Your task to perform on an android device: Go to sound settings Image 0: 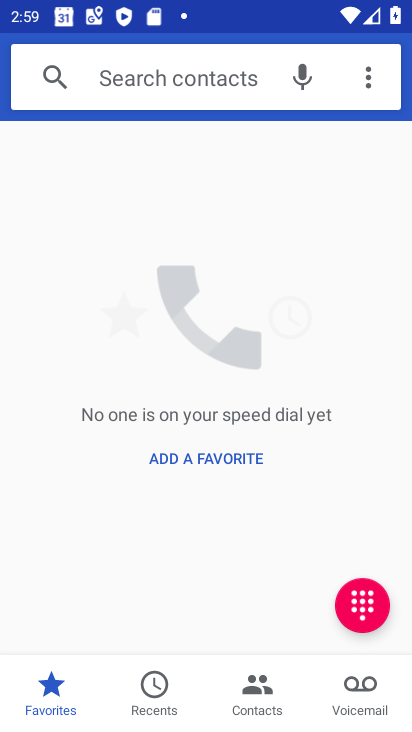
Step 0: press home button
Your task to perform on an android device: Go to sound settings Image 1: 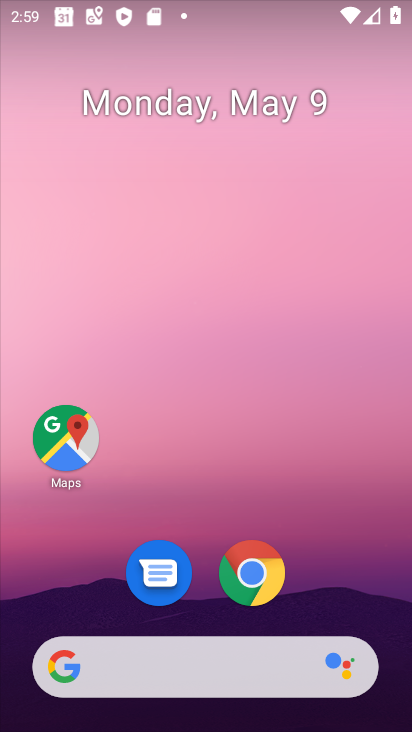
Step 1: drag from (170, 557) to (147, 255)
Your task to perform on an android device: Go to sound settings Image 2: 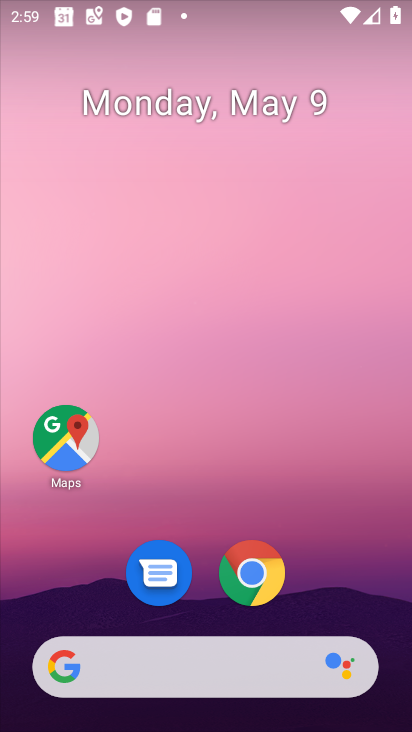
Step 2: drag from (208, 641) to (135, 131)
Your task to perform on an android device: Go to sound settings Image 3: 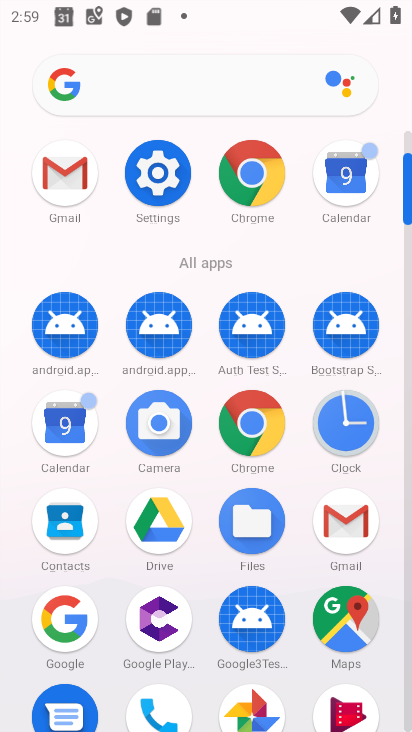
Step 3: click (152, 168)
Your task to perform on an android device: Go to sound settings Image 4: 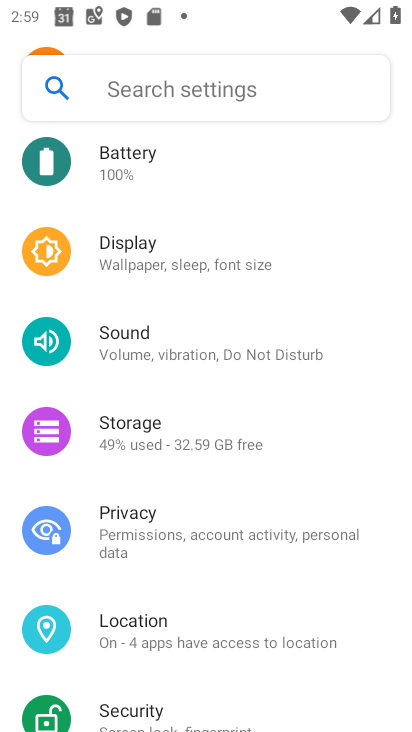
Step 4: click (143, 341)
Your task to perform on an android device: Go to sound settings Image 5: 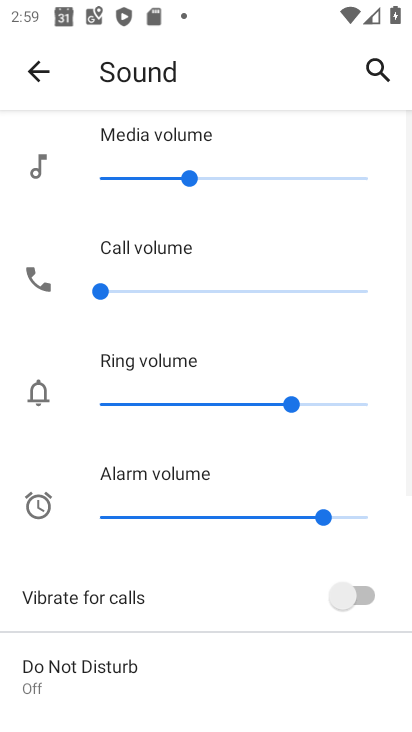
Step 5: drag from (191, 638) to (191, 222)
Your task to perform on an android device: Go to sound settings Image 6: 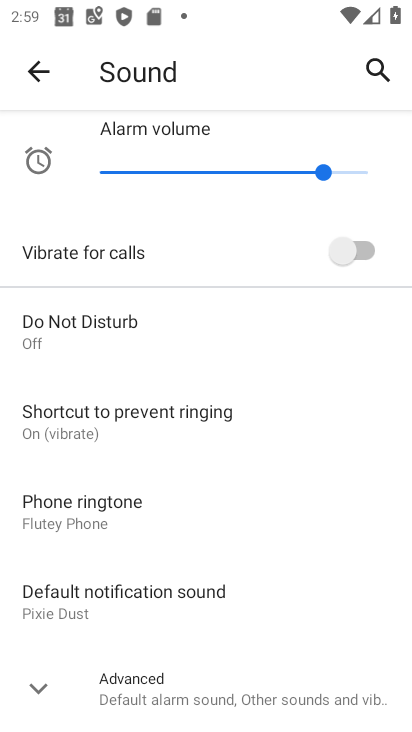
Step 6: click (185, 711)
Your task to perform on an android device: Go to sound settings Image 7: 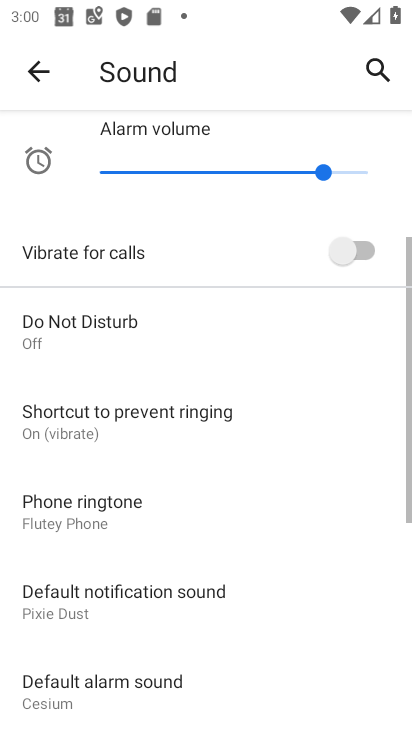
Step 7: task complete